Your task to perform on an android device: see tabs open on other devices in the chrome app Image 0: 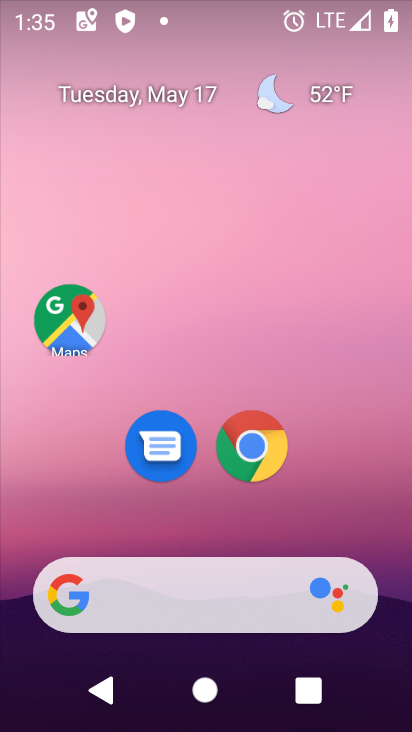
Step 0: click (252, 446)
Your task to perform on an android device: see tabs open on other devices in the chrome app Image 1: 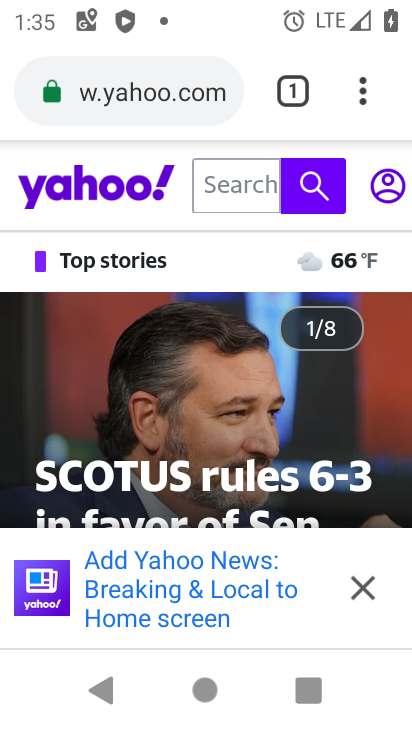
Step 1: click (298, 82)
Your task to perform on an android device: see tabs open on other devices in the chrome app Image 2: 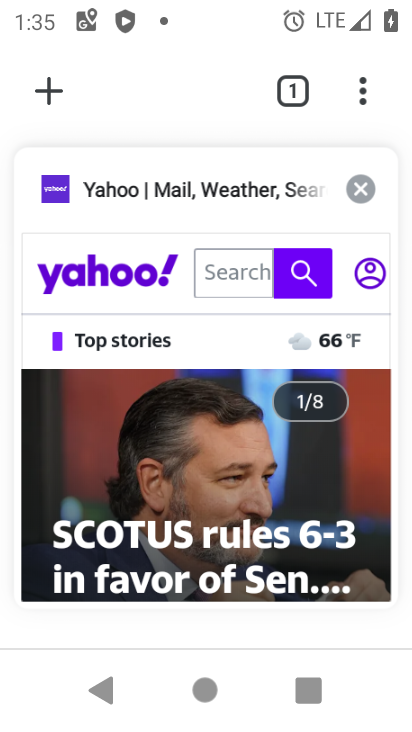
Step 2: task complete